Your task to perform on an android device: Open the stopwatch Image 0: 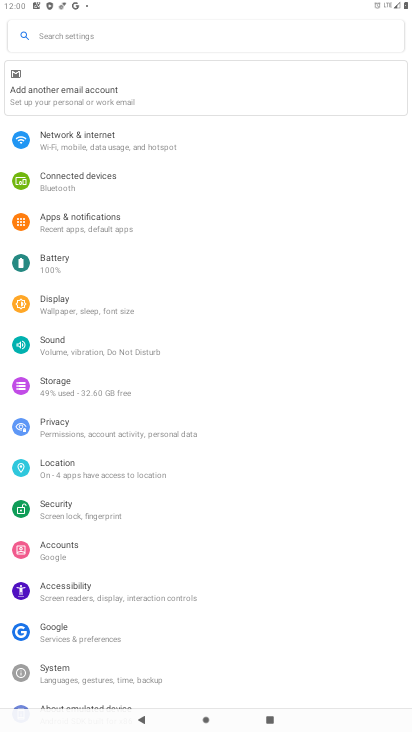
Step 0: press home button
Your task to perform on an android device: Open the stopwatch Image 1: 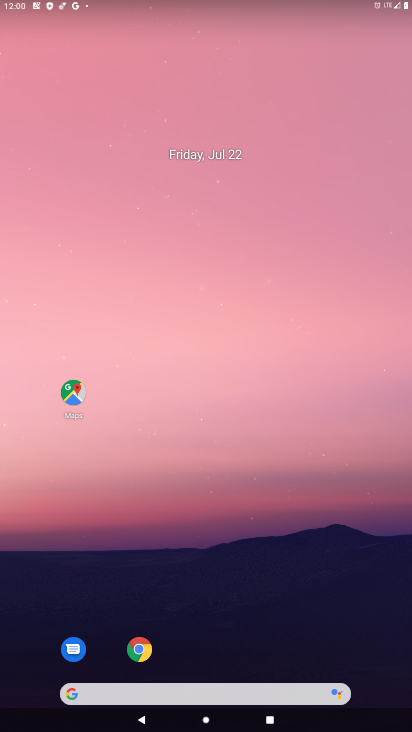
Step 1: drag from (336, 607) to (215, 105)
Your task to perform on an android device: Open the stopwatch Image 2: 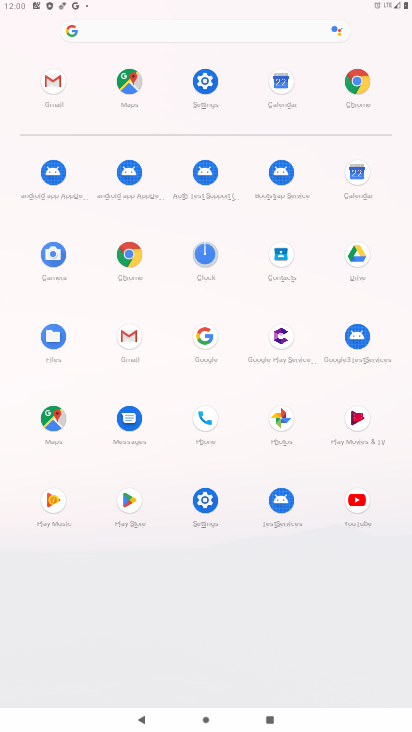
Step 2: click (198, 256)
Your task to perform on an android device: Open the stopwatch Image 3: 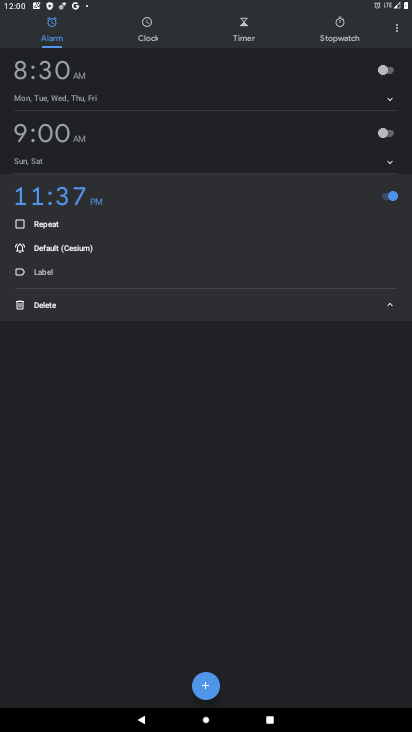
Step 3: click (347, 30)
Your task to perform on an android device: Open the stopwatch Image 4: 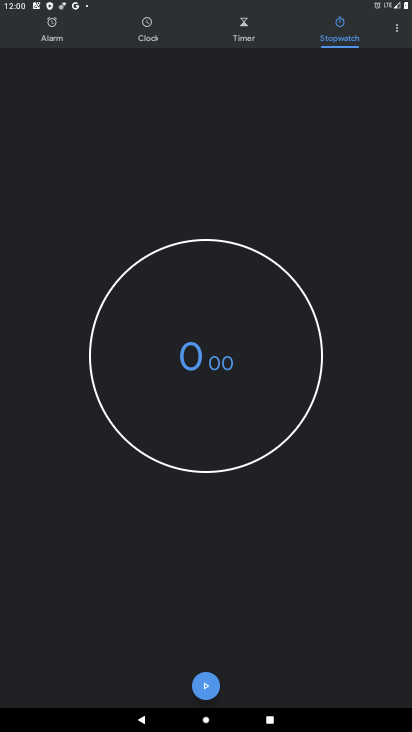
Step 4: task complete